Your task to perform on an android device: choose inbox layout in the gmail app Image 0: 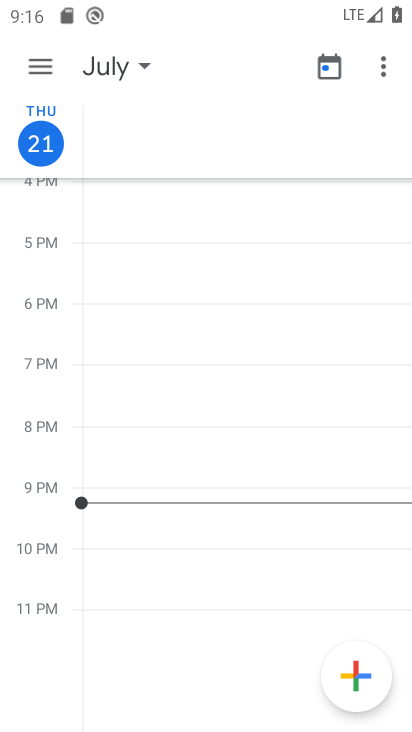
Step 0: press home button
Your task to perform on an android device: choose inbox layout in the gmail app Image 1: 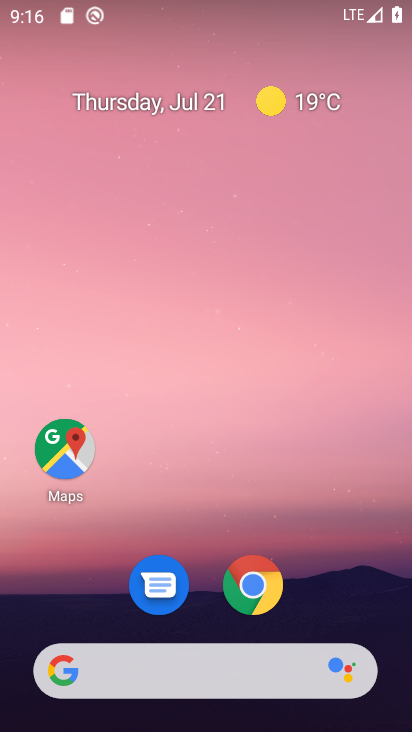
Step 1: drag from (336, 578) to (309, 36)
Your task to perform on an android device: choose inbox layout in the gmail app Image 2: 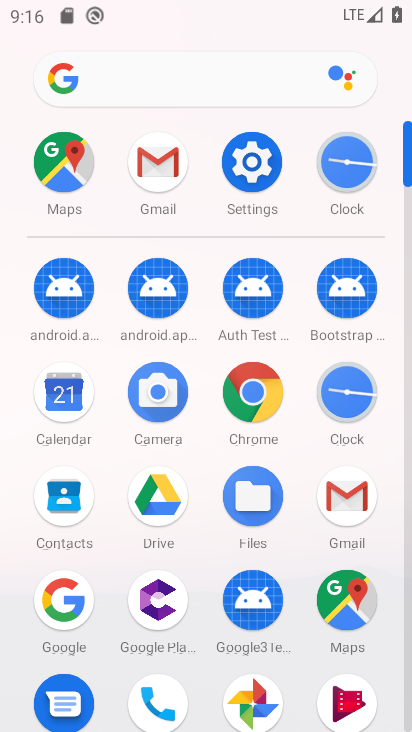
Step 2: click (168, 163)
Your task to perform on an android device: choose inbox layout in the gmail app Image 3: 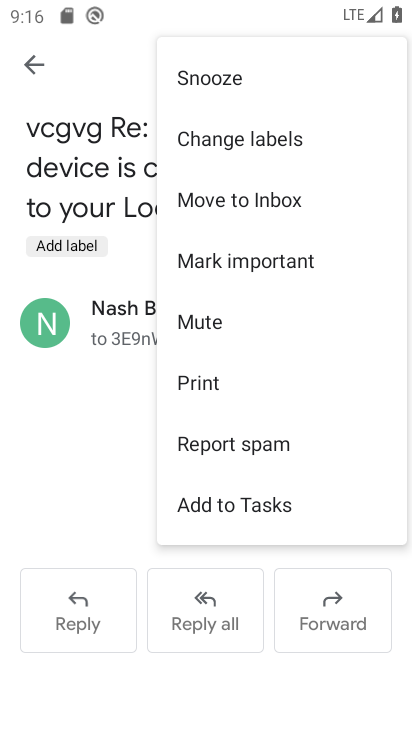
Step 3: click (95, 454)
Your task to perform on an android device: choose inbox layout in the gmail app Image 4: 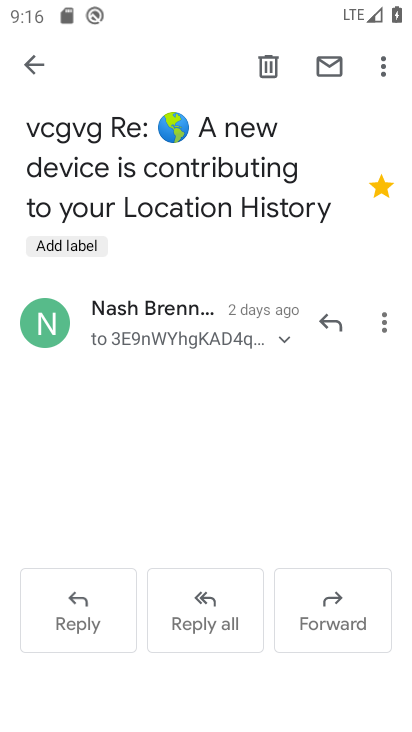
Step 4: click (39, 63)
Your task to perform on an android device: choose inbox layout in the gmail app Image 5: 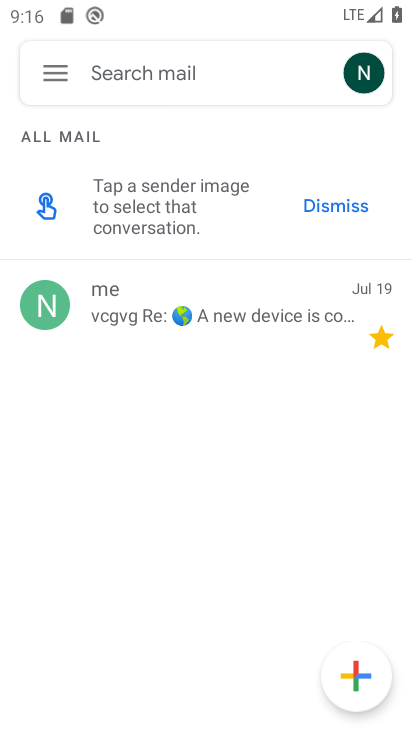
Step 5: click (57, 73)
Your task to perform on an android device: choose inbox layout in the gmail app Image 6: 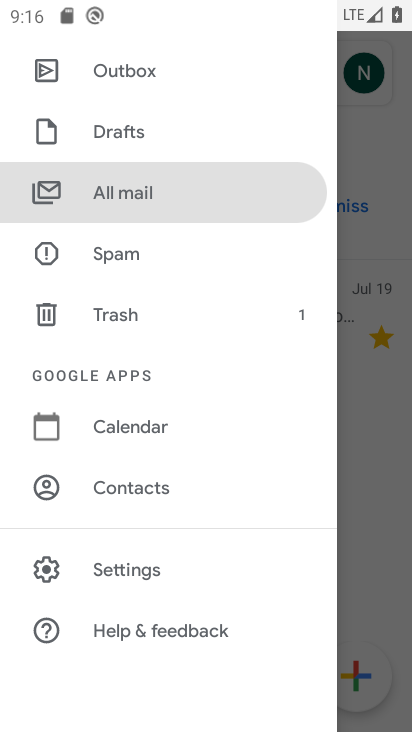
Step 6: click (127, 565)
Your task to perform on an android device: choose inbox layout in the gmail app Image 7: 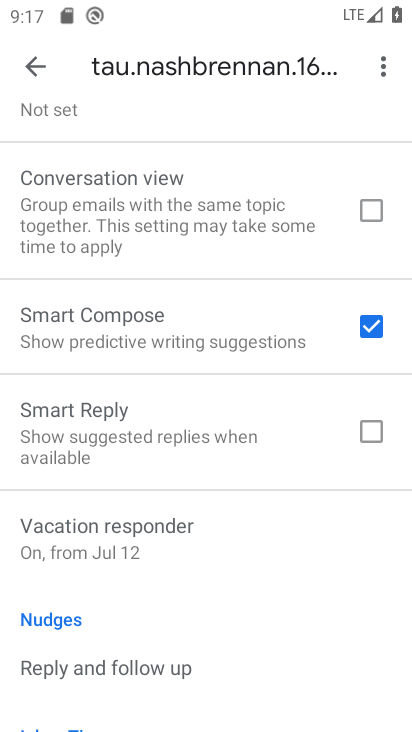
Step 7: drag from (178, 240) to (207, 717)
Your task to perform on an android device: choose inbox layout in the gmail app Image 8: 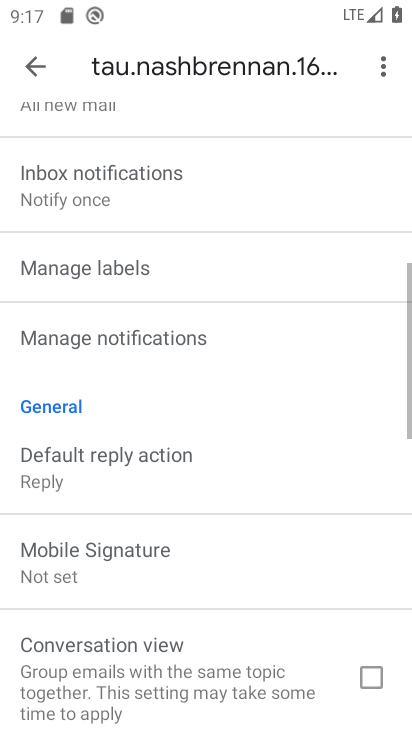
Step 8: drag from (235, 207) to (281, 586)
Your task to perform on an android device: choose inbox layout in the gmail app Image 9: 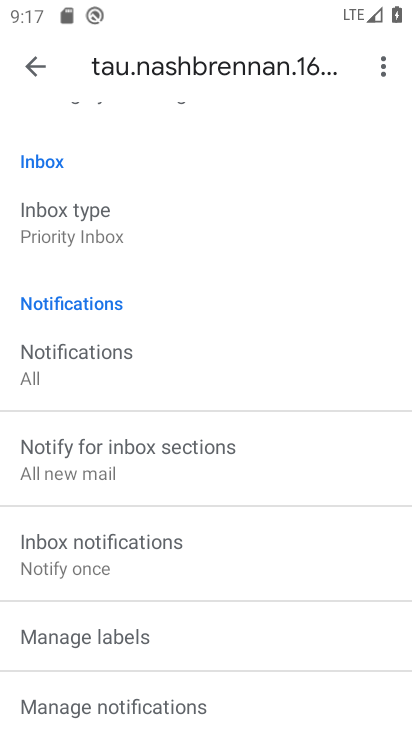
Step 9: click (107, 229)
Your task to perform on an android device: choose inbox layout in the gmail app Image 10: 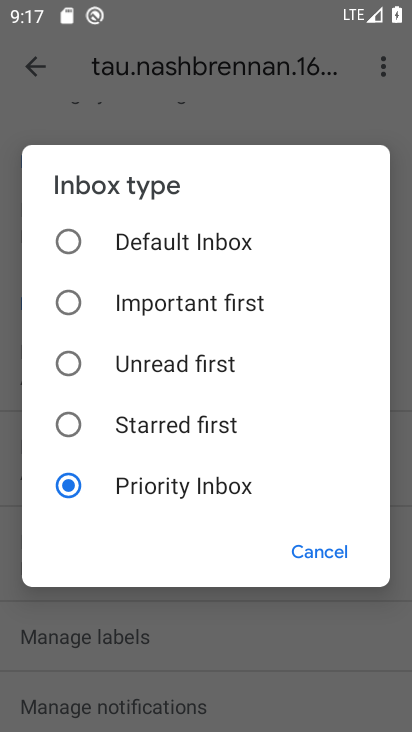
Step 10: click (73, 238)
Your task to perform on an android device: choose inbox layout in the gmail app Image 11: 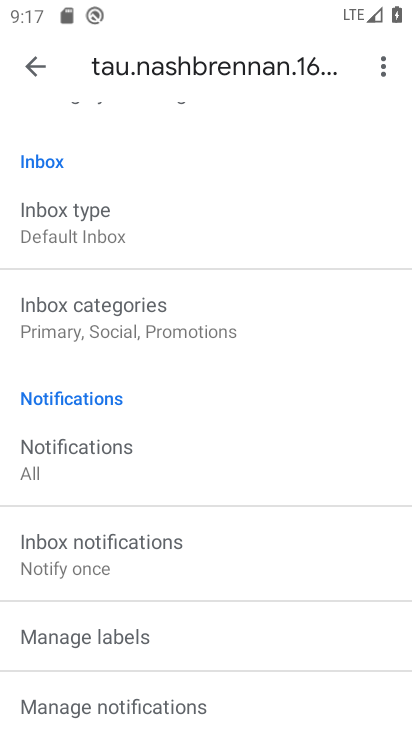
Step 11: task complete